Your task to perform on an android device: What's the weather today? Image 0: 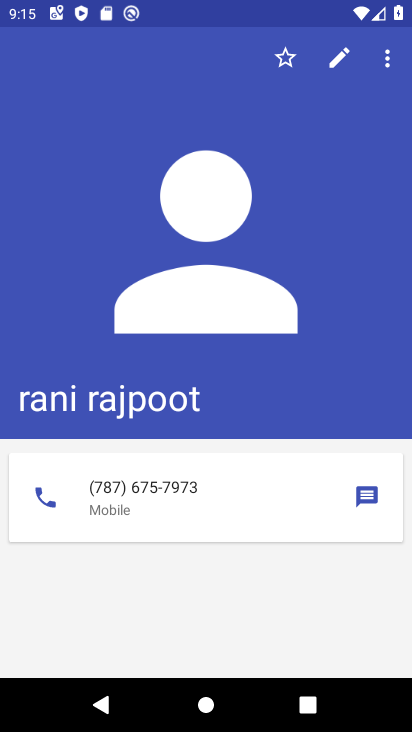
Step 0: press home button
Your task to perform on an android device: What's the weather today? Image 1: 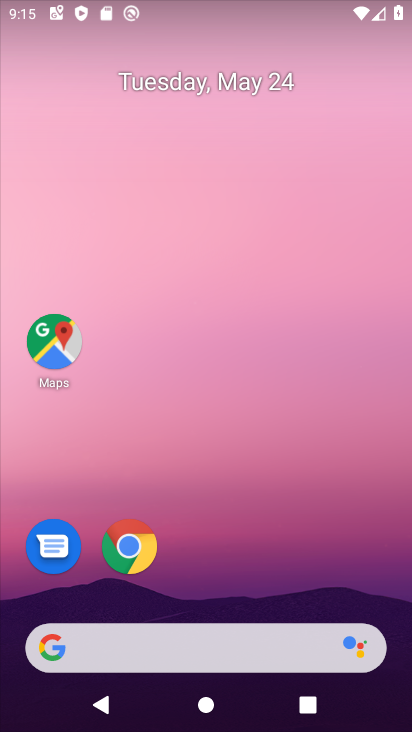
Step 1: drag from (179, 543) to (165, 267)
Your task to perform on an android device: What's the weather today? Image 2: 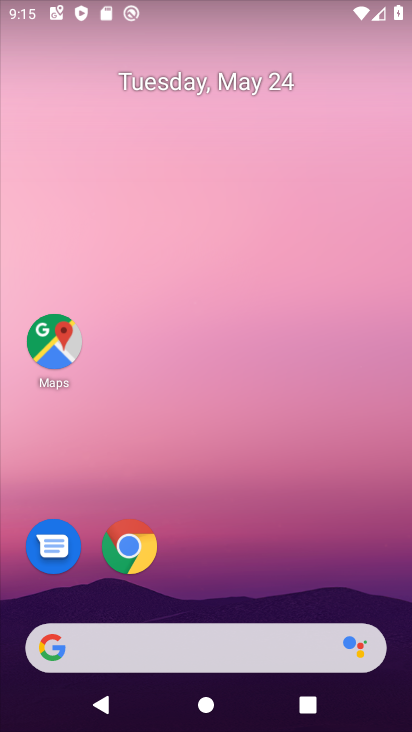
Step 2: drag from (231, 621) to (248, 215)
Your task to perform on an android device: What's the weather today? Image 3: 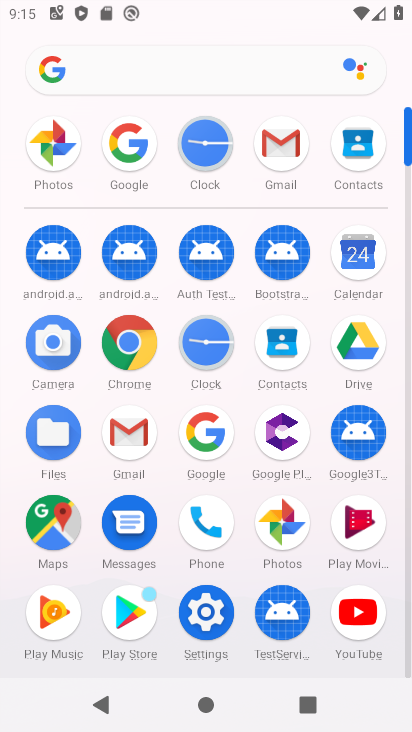
Step 3: click (208, 429)
Your task to perform on an android device: What's the weather today? Image 4: 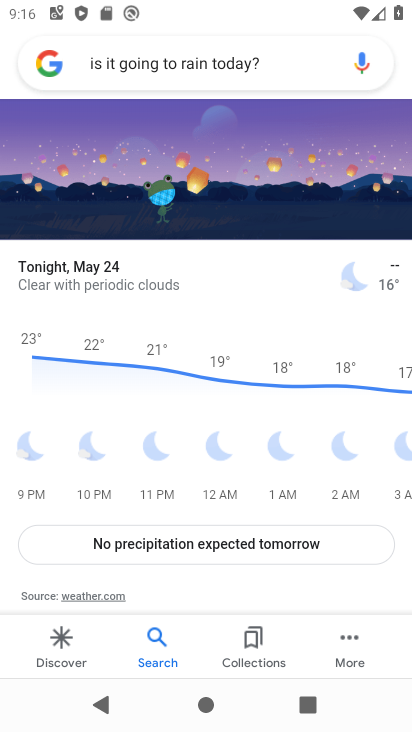
Step 4: task complete